Your task to perform on an android device: turn off wifi Image 0: 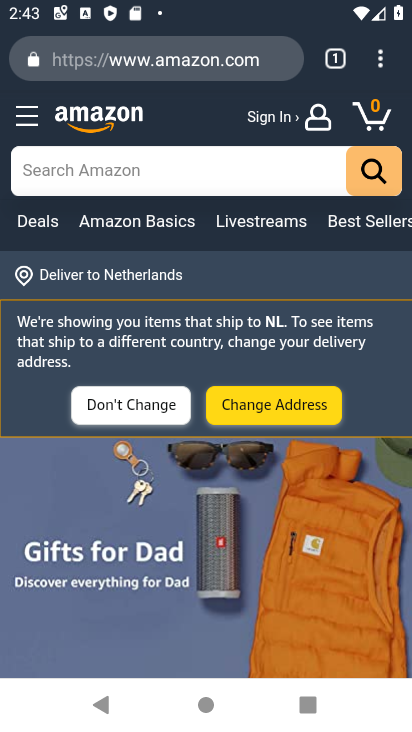
Step 0: press home button
Your task to perform on an android device: turn off wifi Image 1: 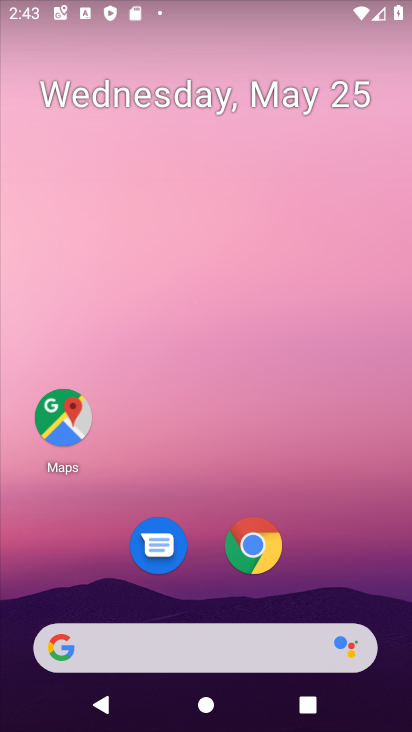
Step 1: drag from (359, 579) to (359, 151)
Your task to perform on an android device: turn off wifi Image 2: 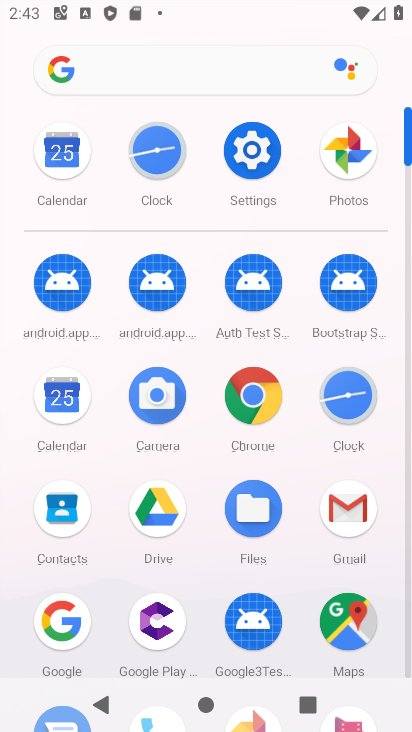
Step 2: click (249, 160)
Your task to perform on an android device: turn off wifi Image 3: 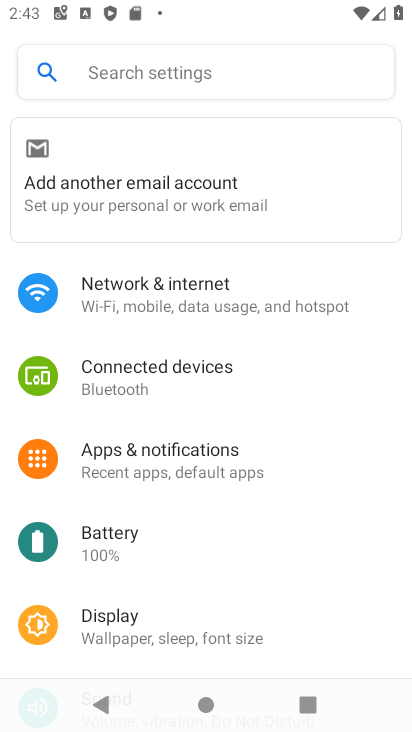
Step 3: click (199, 324)
Your task to perform on an android device: turn off wifi Image 4: 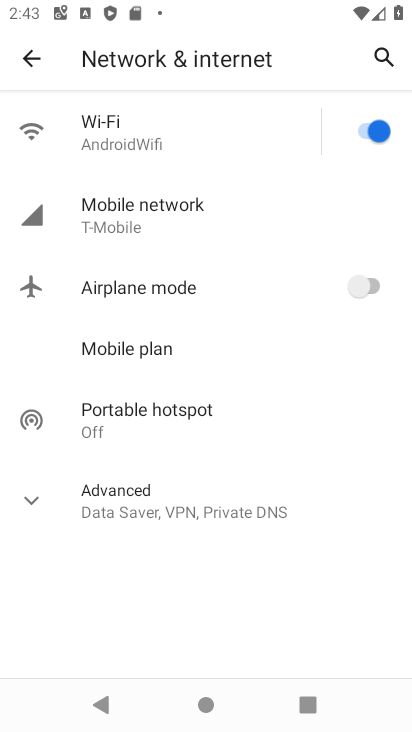
Step 4: click (165, 142)
Your task to perform on an android device: turn off wifi Image 5: 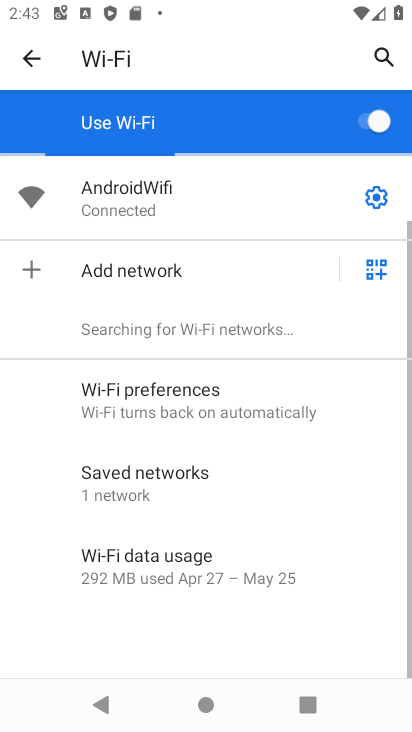
Step 5: task complete